Your task to perform on an android device: manage bookmarks in the chrome app Image 0: 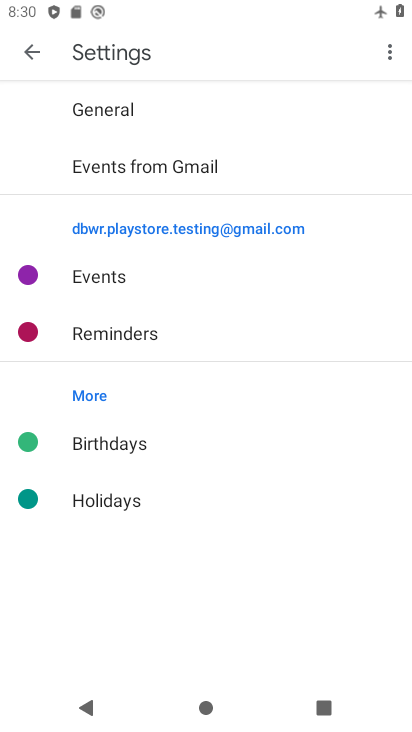
Step 0: press home button
Your task to perform on an android device: manage bookmarks in the chrome app Image 1: 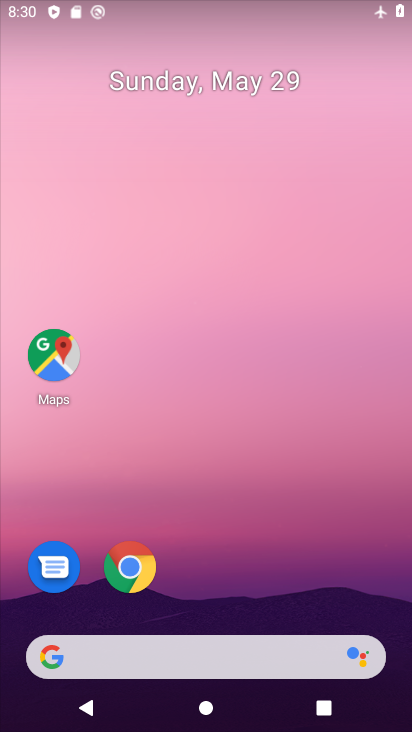
Step 1: click (125, 569)
Your task to perform on an android device: manage bookmarks in the chrome app Image 2: 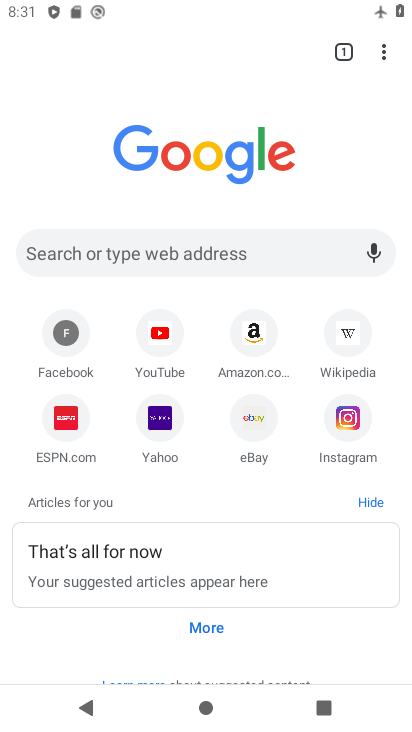
Step 2: click (385, 62)
Your task to perform on an android device: manage bookmarks in the chrome app Image 3: 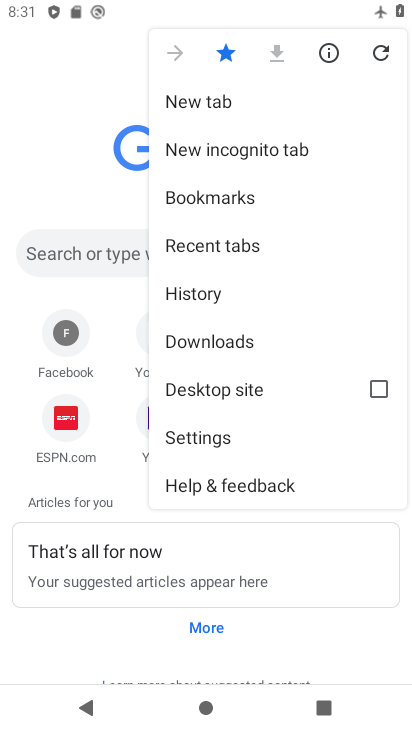
Step 3: click (195, 197)
Your task to perform on an android device: manage bookmarks in the chrome app Image 4: 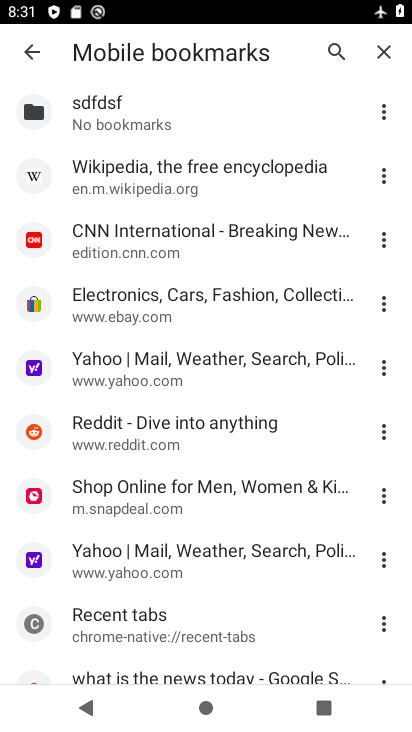
Step 4: click (140, 176)
Your task to perform on an android device: manage bookmarks in the chrome app Image 5: 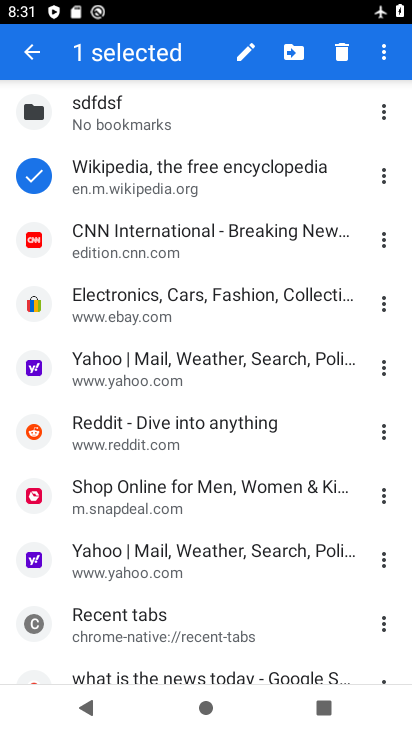
Step 5: click (289, 48)
Your task to perform on an android device: manage bookmarks in the chrome app Image 6: 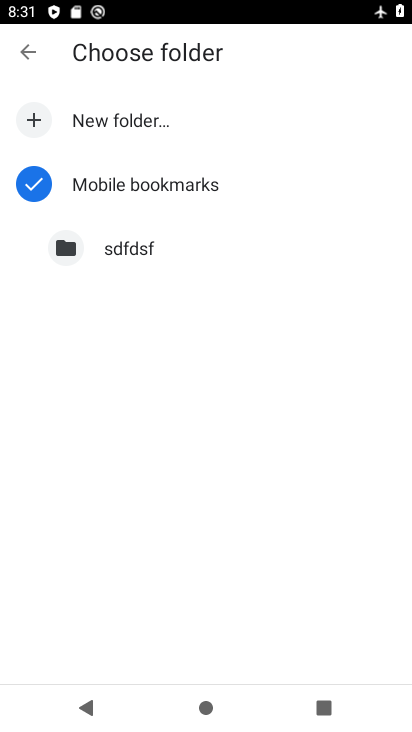
Step 6: click (124, 248)
Your task to perform on an android device: manage bookmarks in the chrome app Image 7: 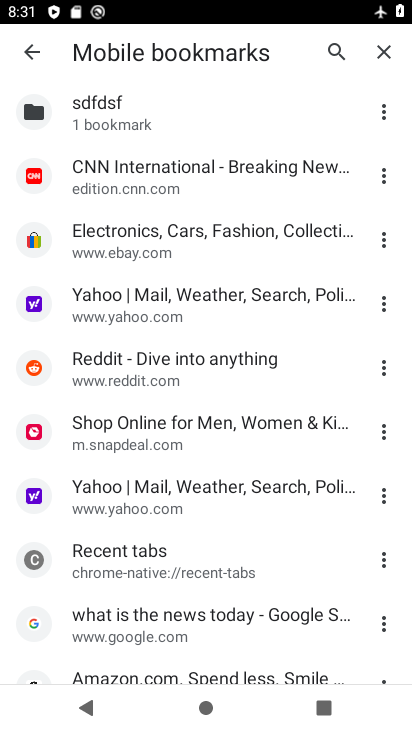
Step 7: task complete